Your task to perform on an android device: Set the phone to "Do not disturb". Image 0: 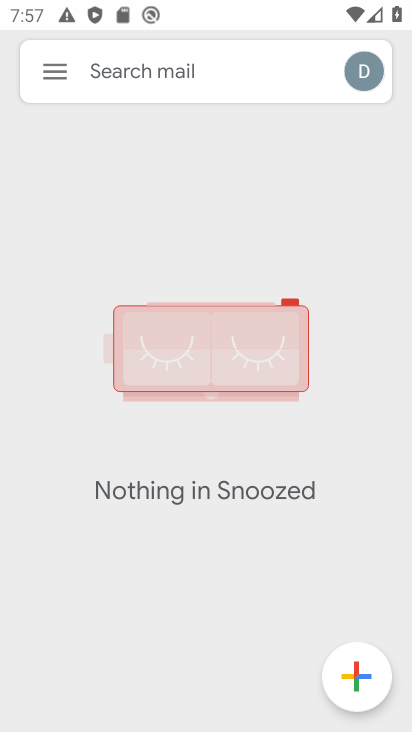
Step 0: press home button
Your task to perform on an android device: Set the phone to "Do not disturb". Image 1: 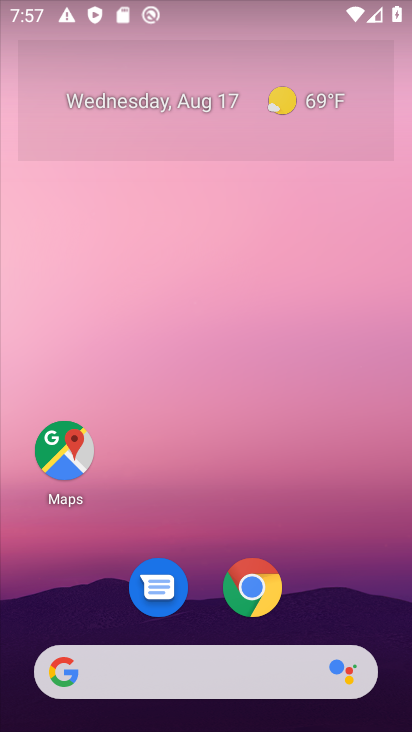
Step 1: drag from (21, 698) to (168, 234)
Your task to perform on an android device: Set the phone to "Do not disturb". Image 2: 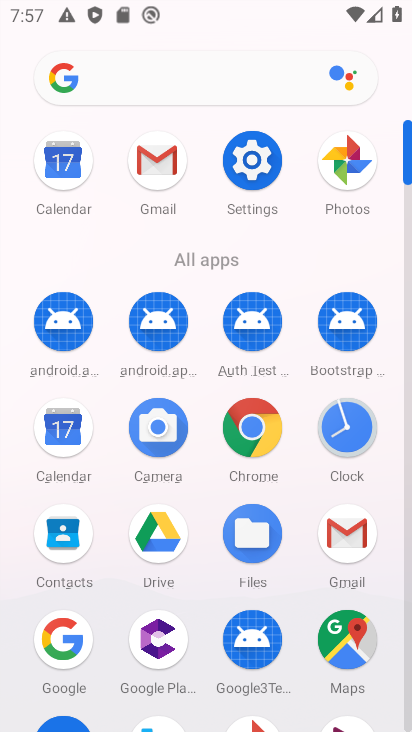
Step 2: drag from (189, 685) to (271, 338)
Your task to perform on an android device: Set the phone to "Do not disturb". Image 3: 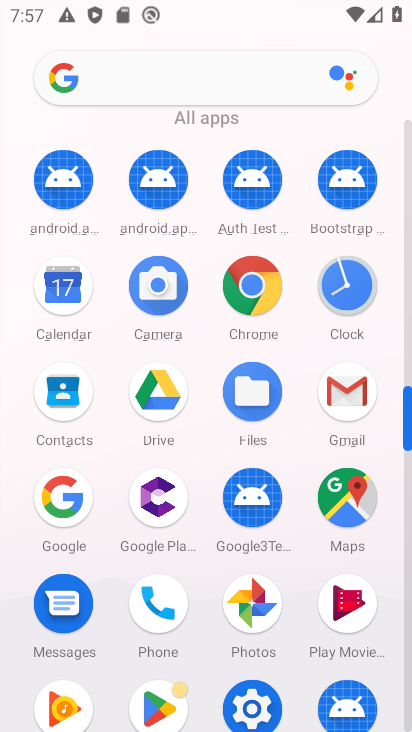
Step 3: click (246, 704)
Your task to perform on an android device: Set the phone to "Do not disturb". Image 4: 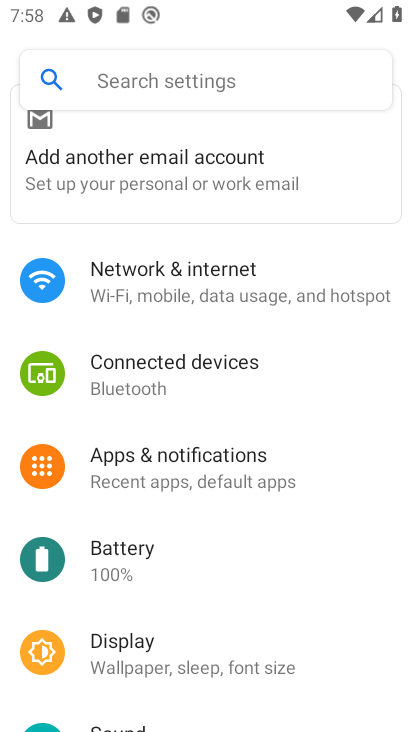
Step 4: drag from (324, 695) to (264, 253)
Your task to perform on an android device: Set the phone to "Do not disturb". Image 5: 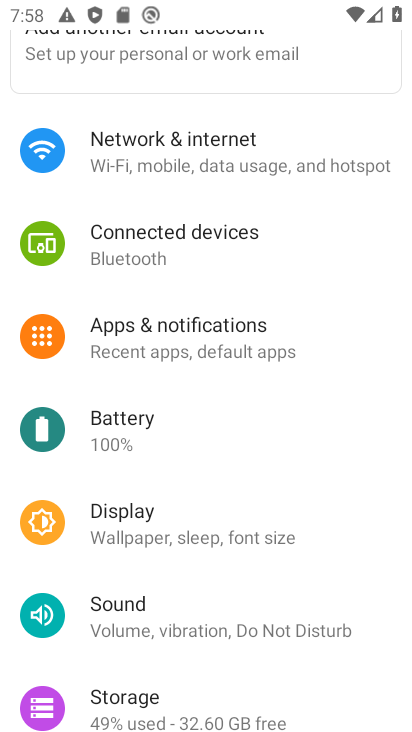
Step 5: click (222, 636)
Your task to perform on an android device: Set the phone to "Do not disturb". Image 6: 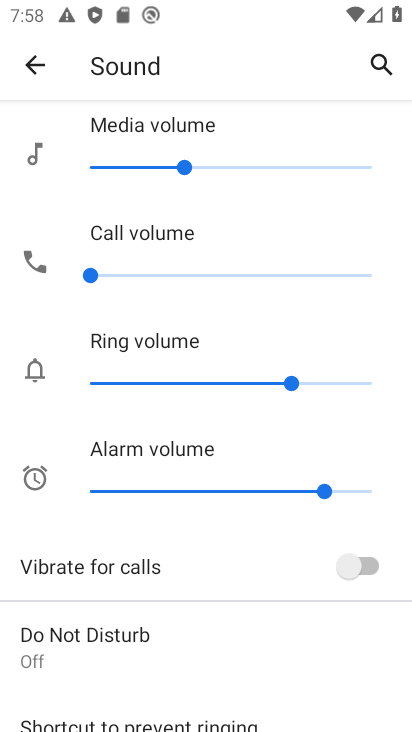
Step 6: click (73, 646)
Your task to perform on an android device: Set the phone to "Do not disturb". Image 7: 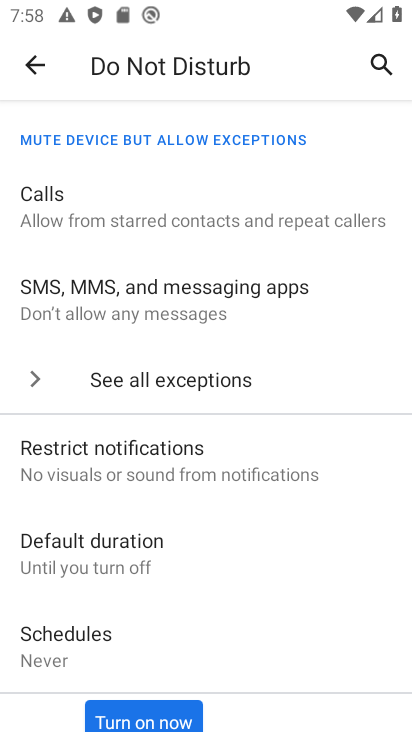
Step 7: click (149, 718)
Your task to perform on an android device: Set the phone to "Do not disturb". Image 8: 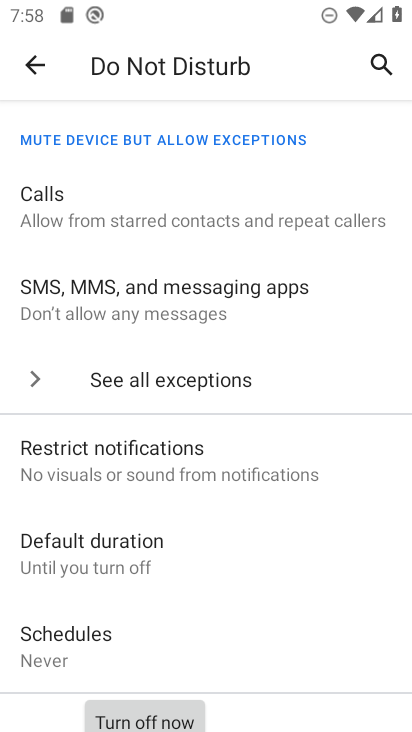
Step 8: task complete